Your task to perform on an android device: all mails in gmail Image 0: 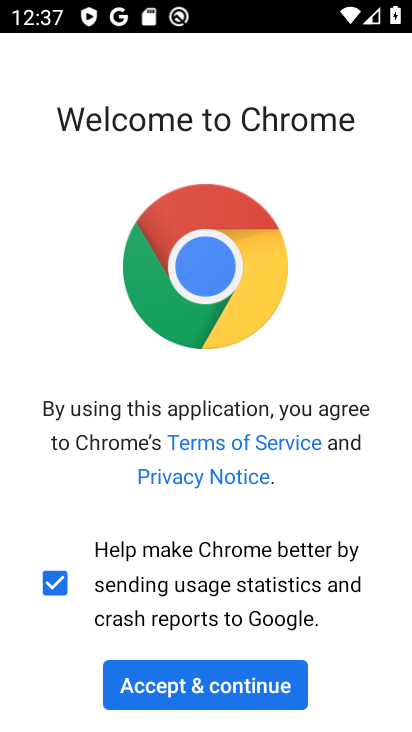
Step 0: press back button
Your task to perform on an android device: all mails in gmail Image 1: 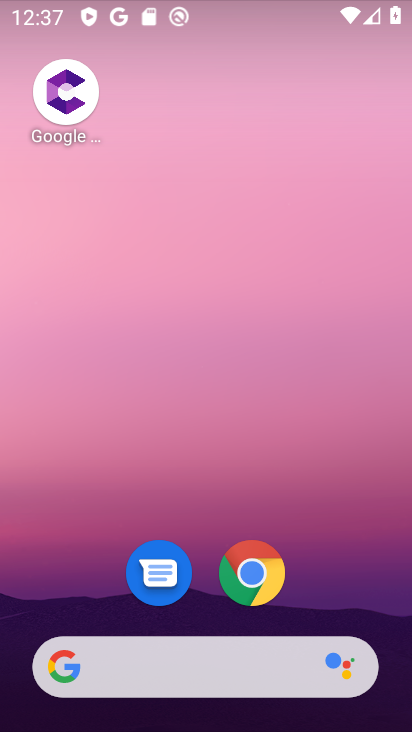
Step 1: drag from (345, 547) to (269, 0)
Your task to perform on an android device: all mails in gmail Image 2: 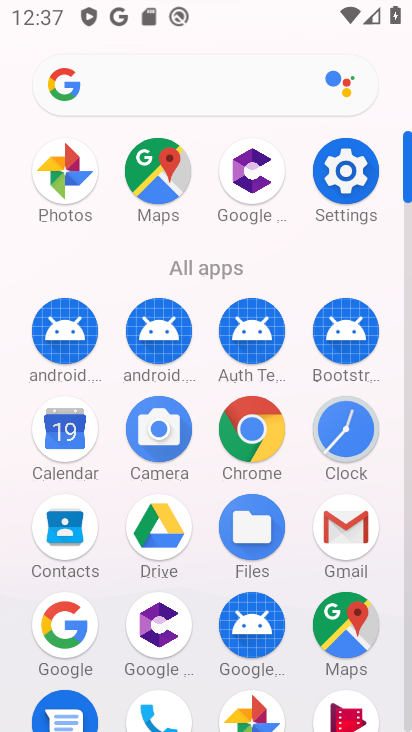
Step 2: drag from (15, 592) to (25, 264)
Your task to perform on an android device: all mails in gmail Image 3: 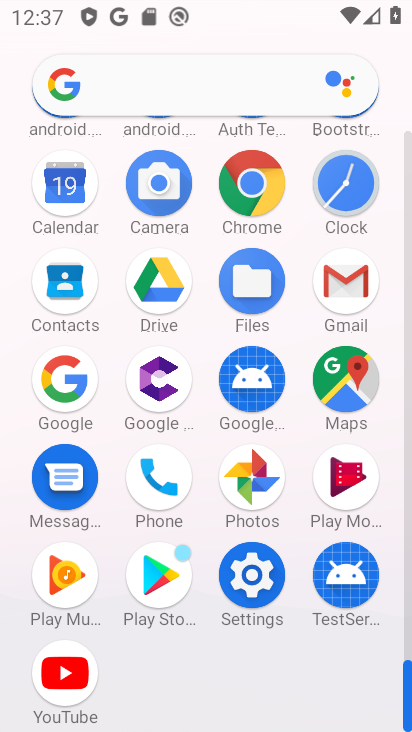
Step 3: click (347, 273)
Your task to perform on an android device: all mails in gmail Image 4: 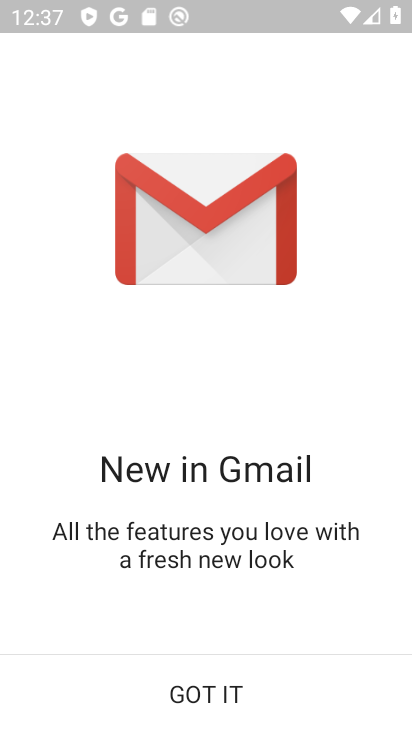
Step 4: click (208, 675)
Your task to perform on an android device: all mails in gmail Image 5: 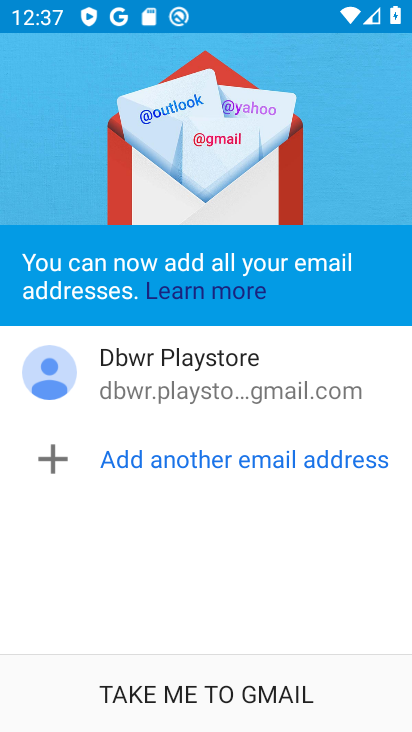
Step 5: click (208, 675)
Your task to perform on an android device: all mails in gmail Image 6: 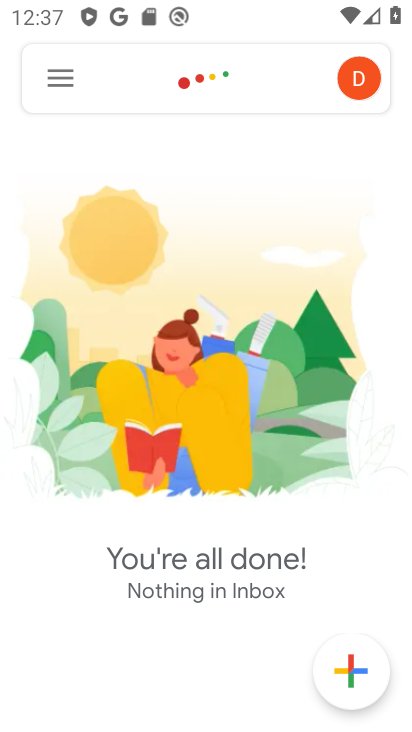
Step 6: click (59, 72)
Your task to perform on an android device: all mails in gmail Image 7: 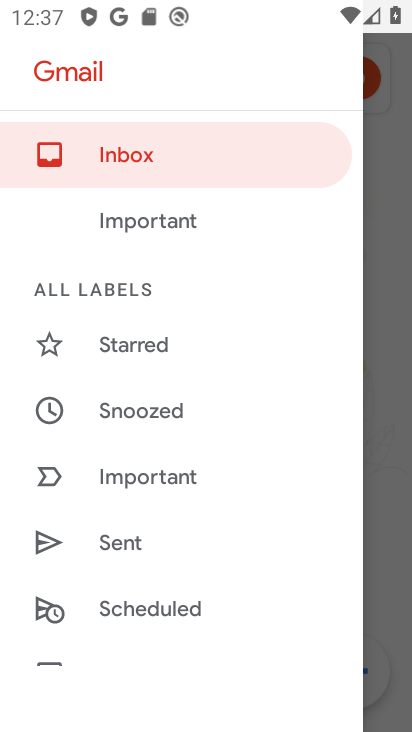
Step 7: drag from (135, 598) to (181, 151)
Your task to perform on an android device: all mails in gmail Image 8: 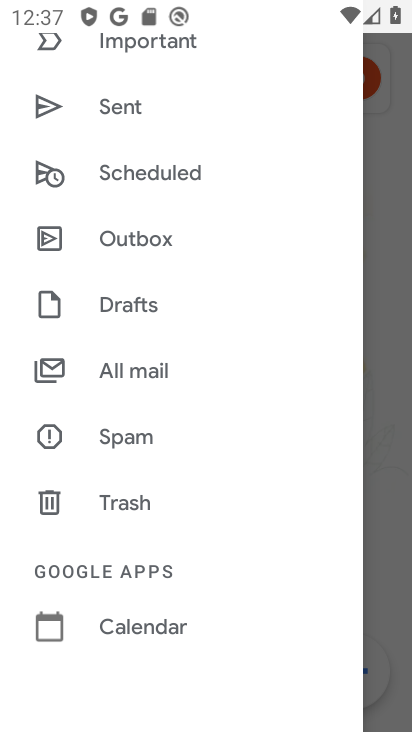
Step 8: click (142, 376)
Your task to perform on an android device: all mails in gmail Image 9: 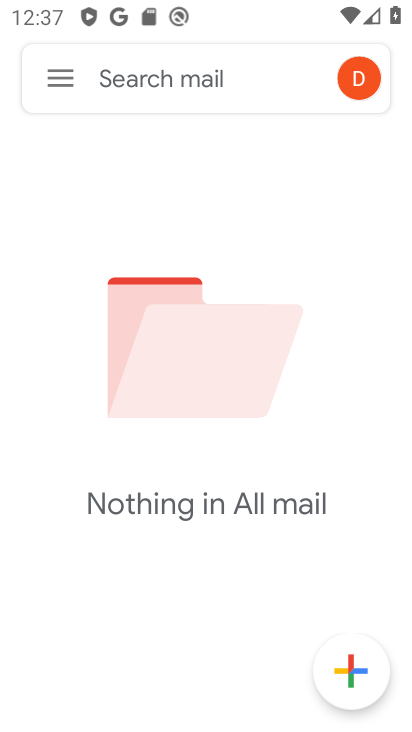
Step 9: task complete